Your task to perform on an android device: create a new album in the google photos Image 0: 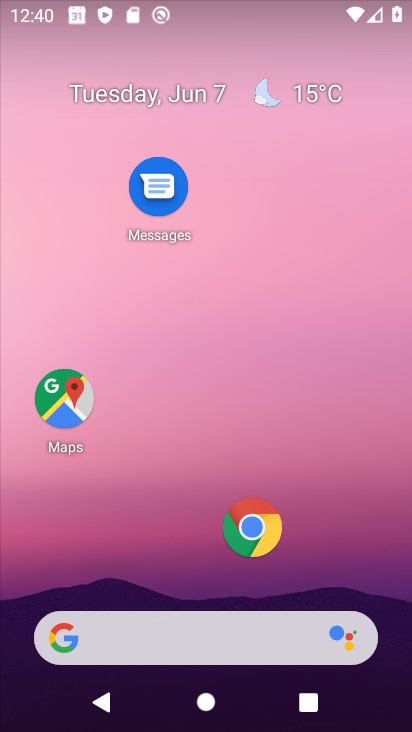
Step 0: drag from (192, 400) to (192, 255)
Your task to perform on an android device: create a new album in the google photos Image 1: 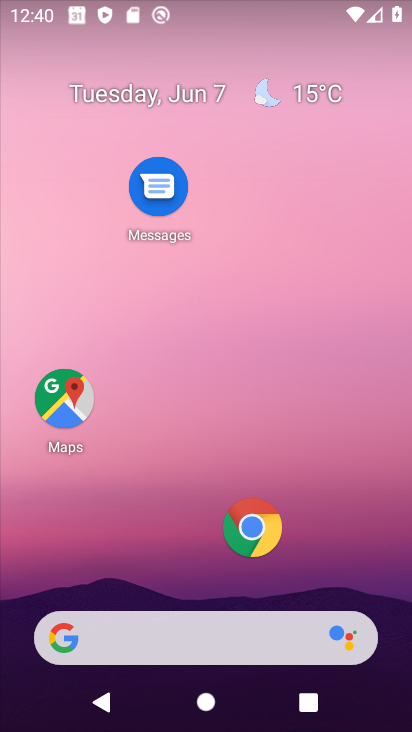
Step 1: drag from (245, 616) to (260, 102)
Your task to perform on an android device: create a new album in the google photos Image 2: 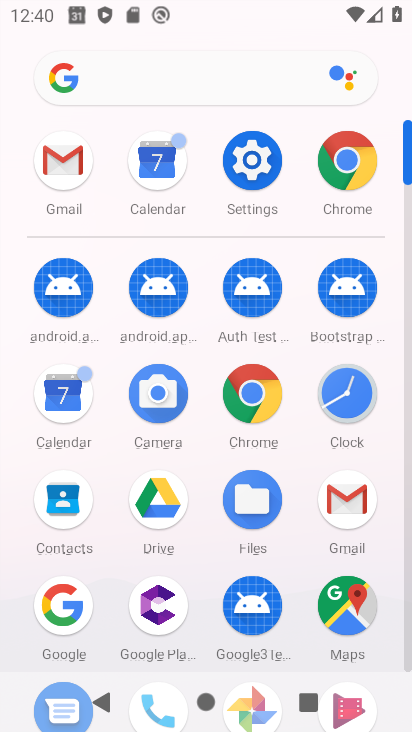
Step 2: drag from (255, 584) to (255, 295)
Your task to perform on an android device: create a new album in the google photos Image 3: 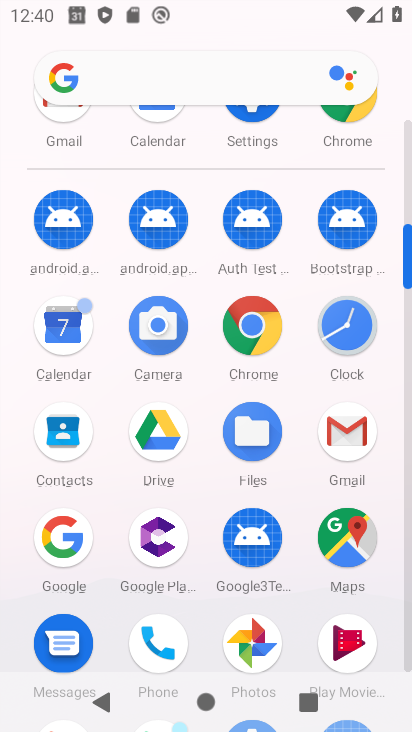
Step 3: click (260, 641)
Your task to perform on an android device: create a new album in the google photos Image 4: 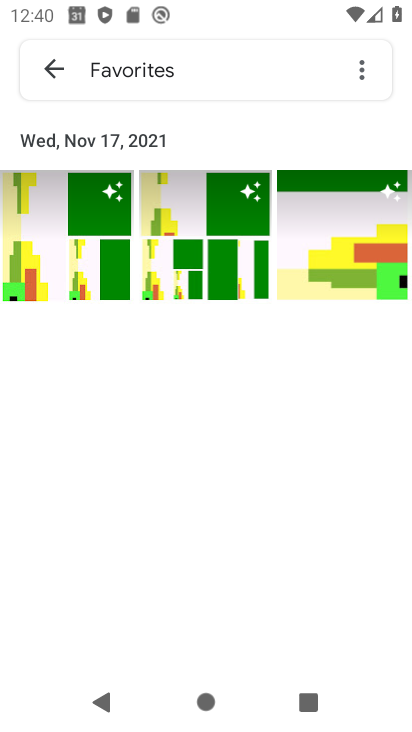
Step 4: click (55, 73)
Your task to perform on an android device: create a new album in the google photos Image 5: 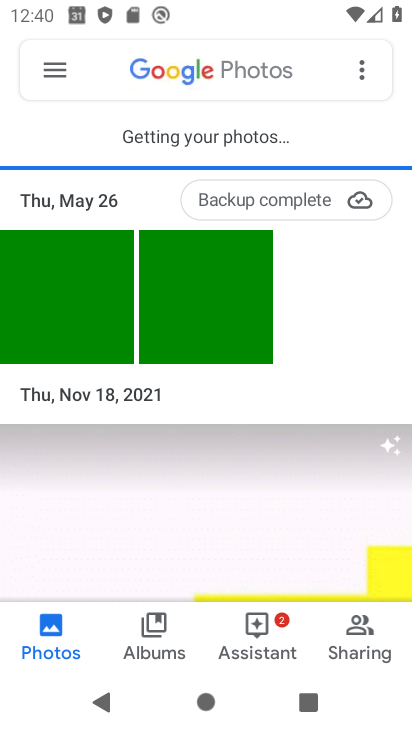
Step 5: click (134, 646)
Your task to perform on an android device: create a new album in the google photos Image 6: 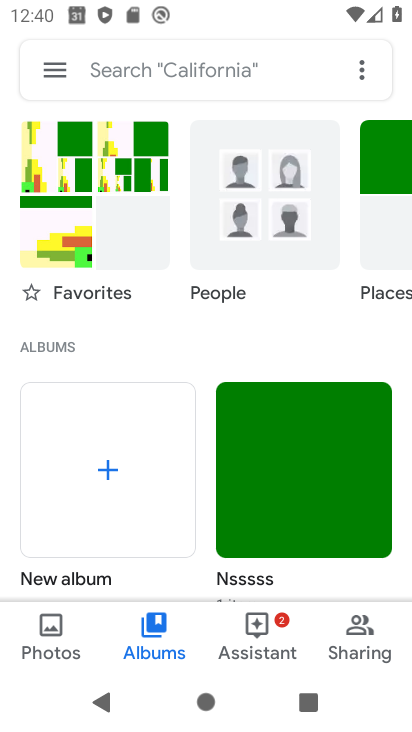
Step 6: click (91, 475)
Your task to perform on an android device: create a new album in the google photos Image 7: 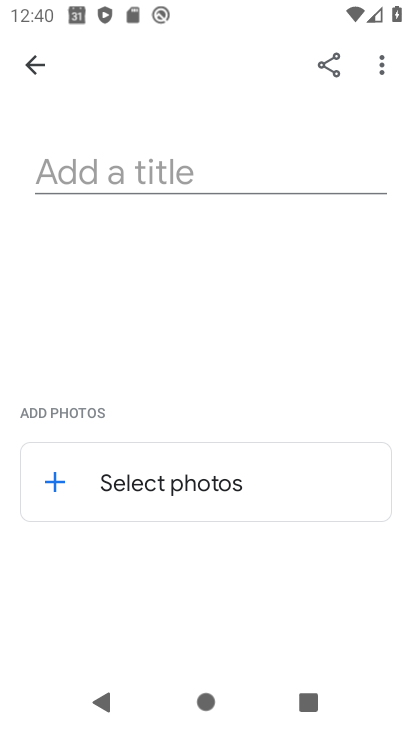
Step 7: click (107, 158)
Your task to perform on an android device: create a new album in the google photos Image 8: 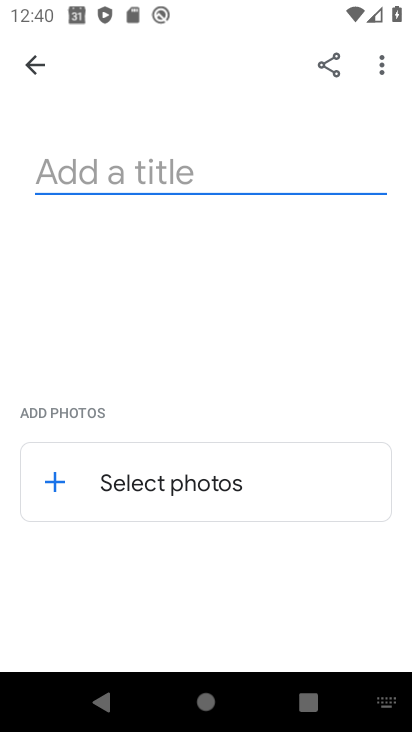
Step 8: type "album 98"
Your task to perform on an android device: create a new album in the google photos Image 9: 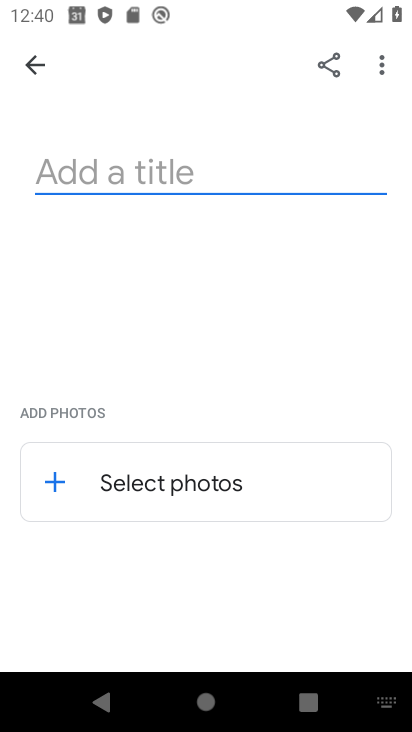
Step 9: click (173, 485)
Your task to perform on an android device: create a new album in the google photos Image 10: 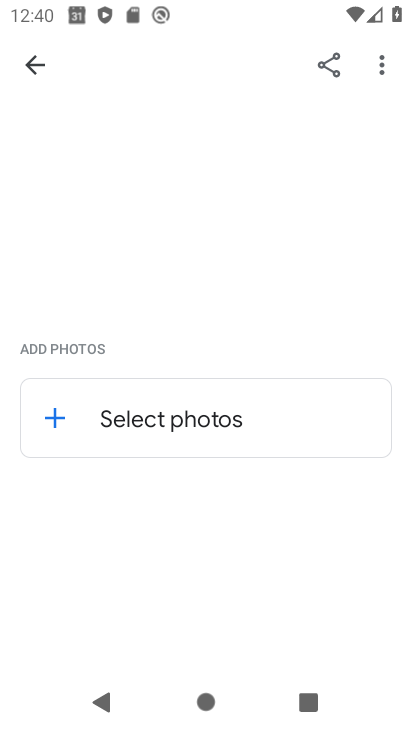
Step 10: click (57, 430)
Your task to perform on an android device: create a new album in the google photos Image 11: 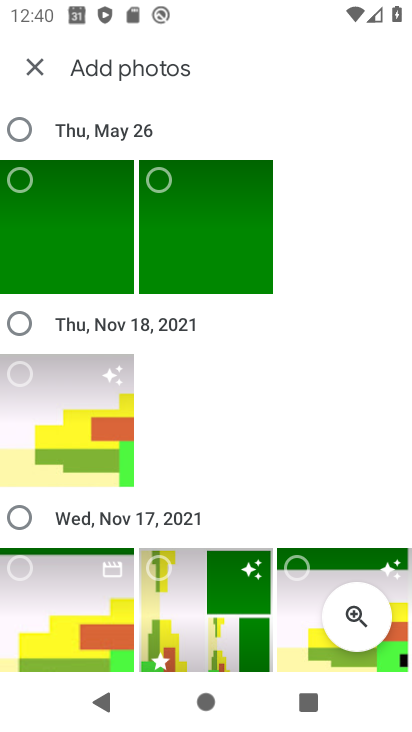
Step 11: click (9, 119)
Your task to perform on an android device: create a new album in the google photos Image 12: 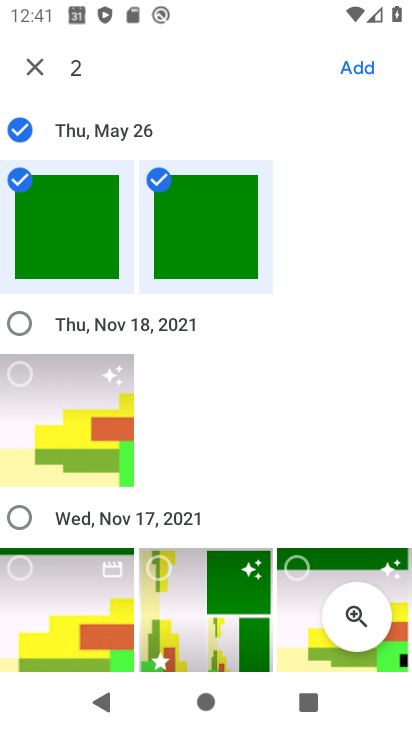
Step 12: click (17, 519)
Your task to perform on an android device: create a new album in the google photos Image 13: 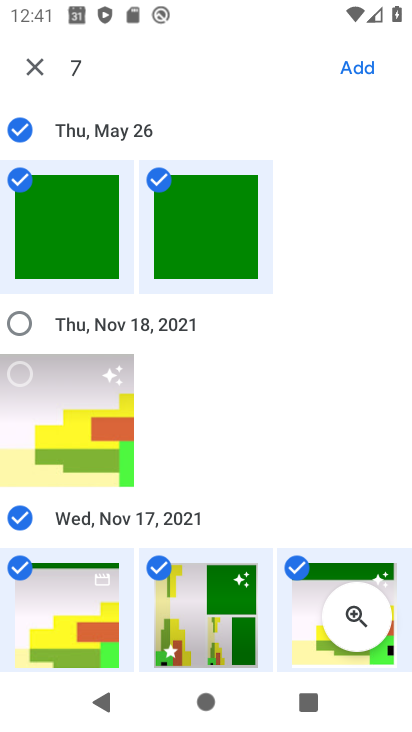
Step 13: click (363, 62)
Your task to perform on an android device: create a new album in the google photos Image 14: 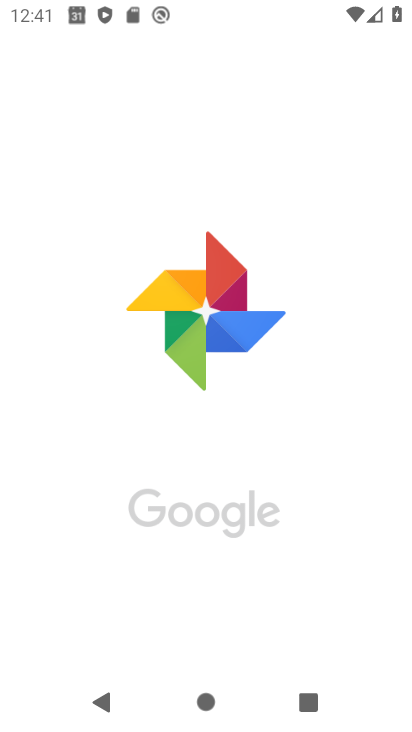
Step 14: task complete